Your task to perform on an android device: uninstall "Duolingo: language lessons" Image 0: 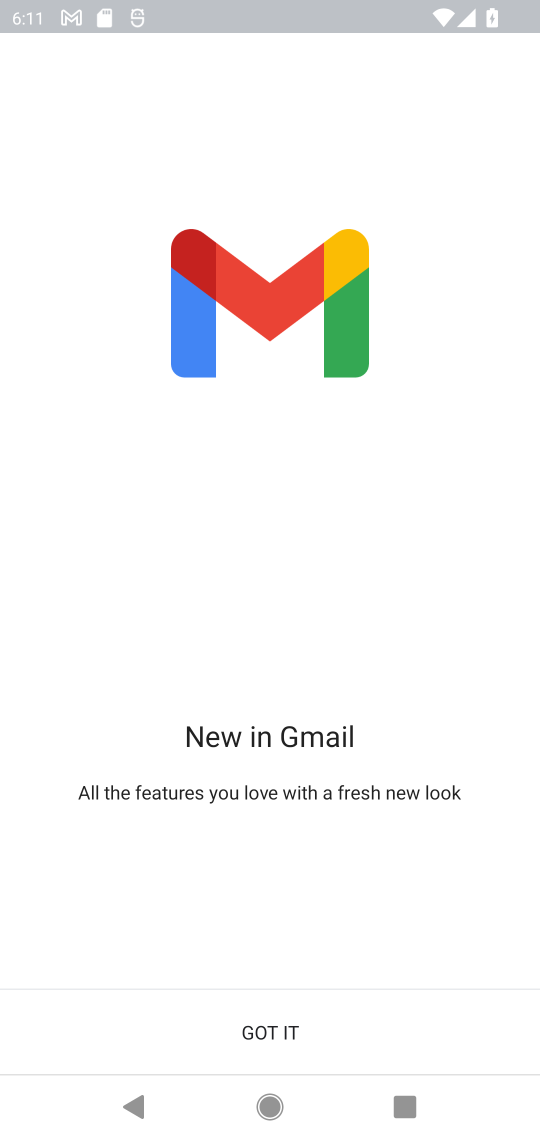
Step 0: click (268, 1019)
Your task to perform on an android device: uninstall "Duolingo: language lessons" Image 1: 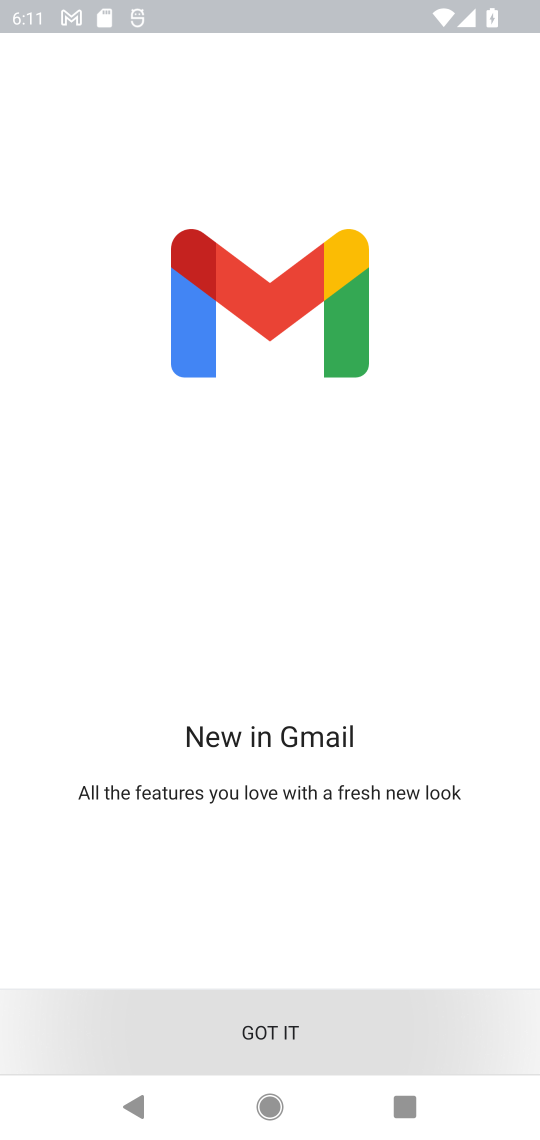
Step 1: click (300, 1025)
Your task to perform on an android device: uninstall "Duolingo: language lessons" Image 2: 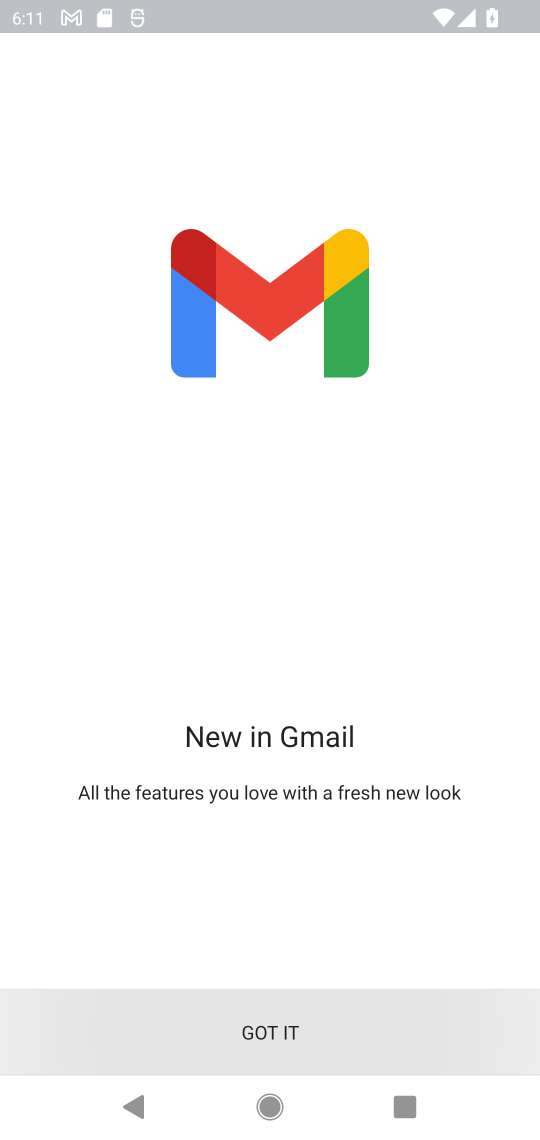
Step 2: click (302, 1025)
Your task to perform on an android device: uninstall "Duolingo: language lessons" Image 3: 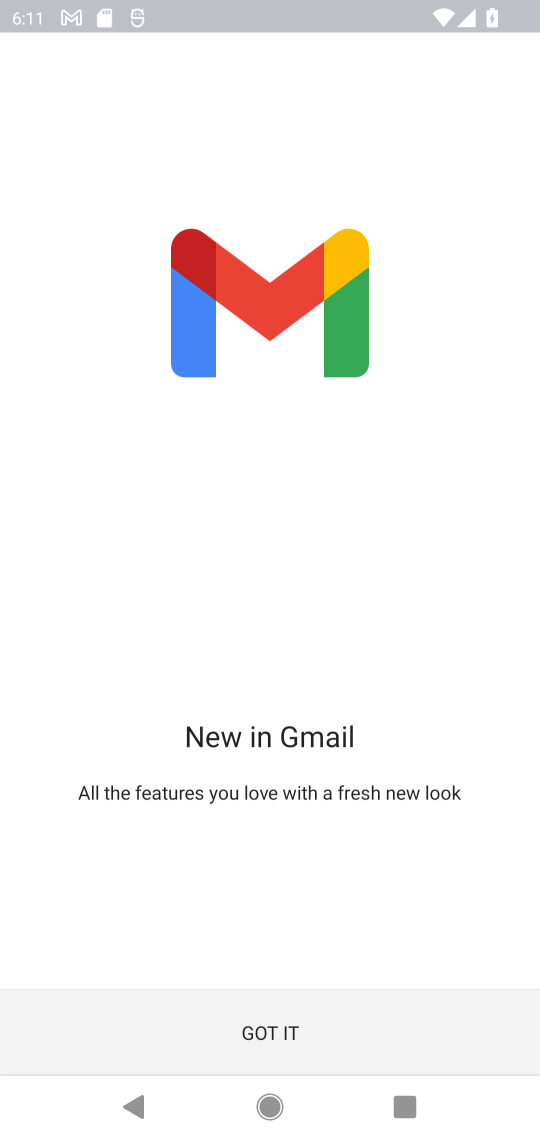
Step 3: click (303, 1023)
Your task to perform on an android device: uninstall "Duolingo: language lessons" Image 4: 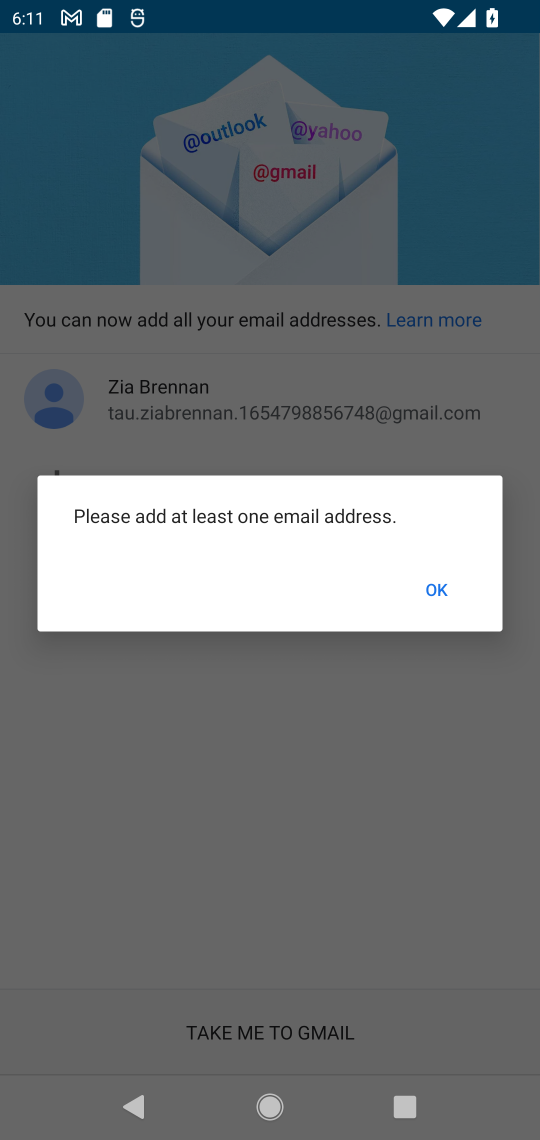
Step 4: click (437, 588)
Your task to perform on an android device: uninstall "Duolingo: language lessons" Image 5: 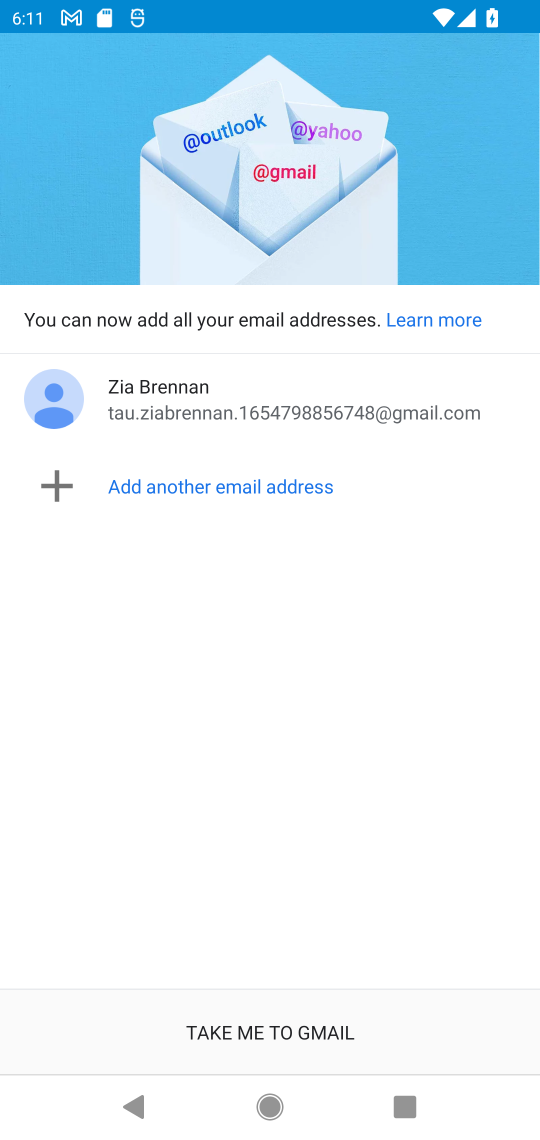
Step 5: press back button
Your task to perform on an android device: uninstall "Duolingo: language lessons" Image 6: 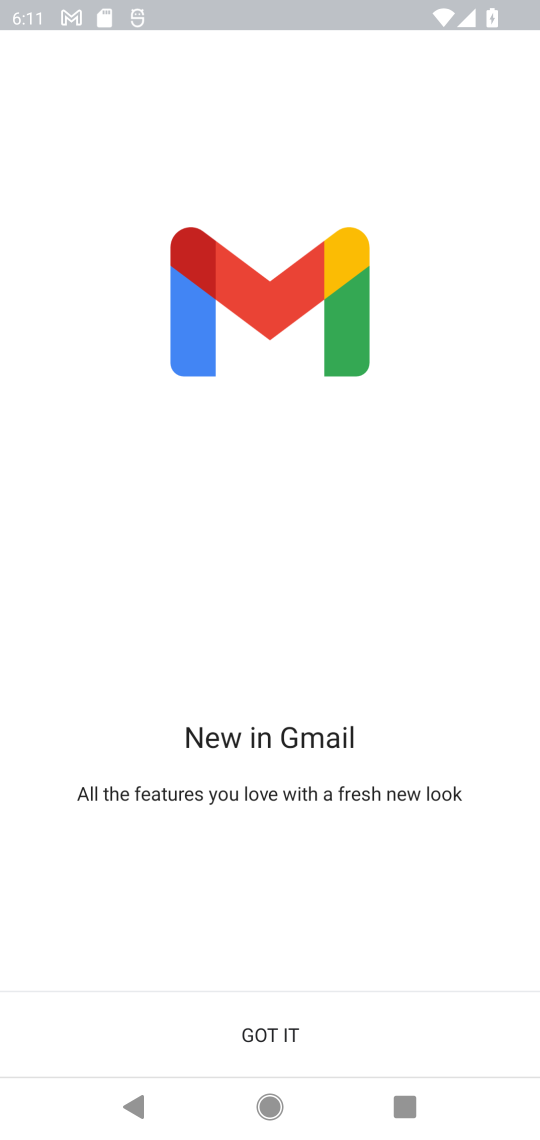
Step 6: press back button
Your task to perform on an android device: uninstall "Duolingo: language lessons" Image 7: 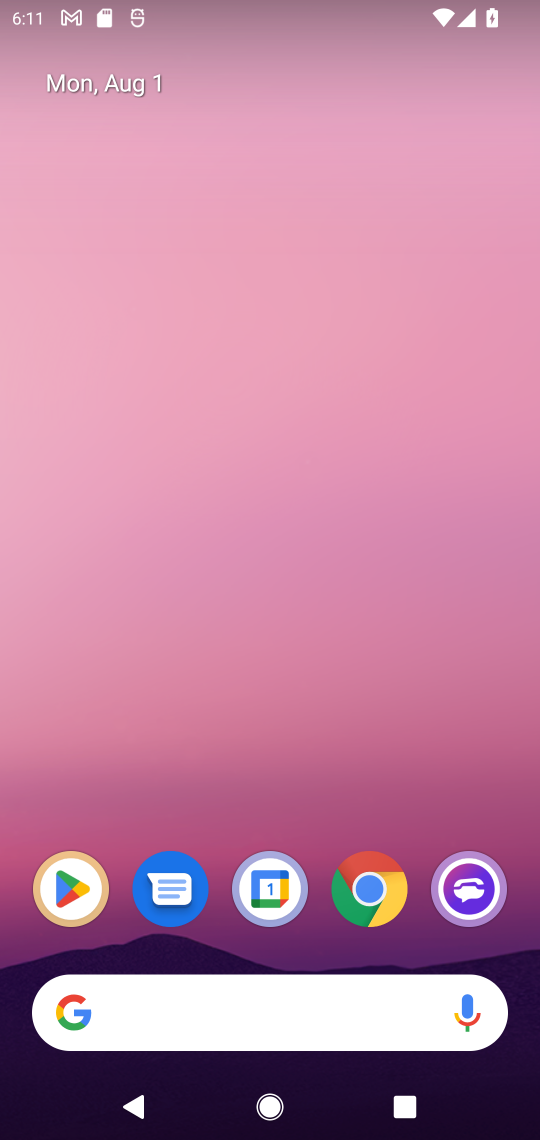
Step 7: drag from (270, 1030) to (134, 179)
Your task to perform on an android device: uninstall "Duolingo: language lessons" Image 8: 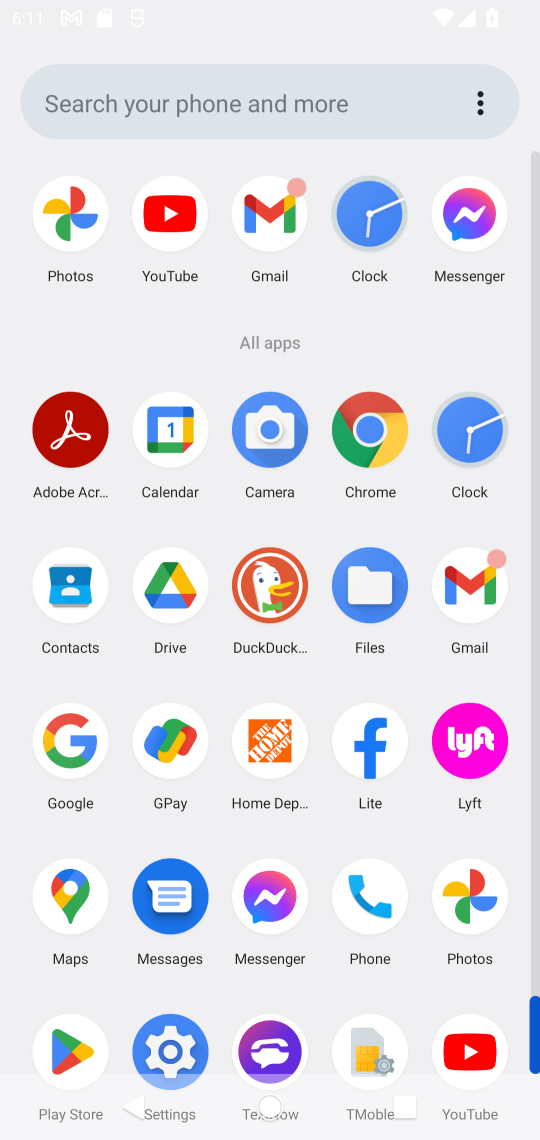
Step 8: drag from (240, 672) to (232, 327)
Your task to perform on an android device: uninstall "Duolingo: language lessons" Image 9: 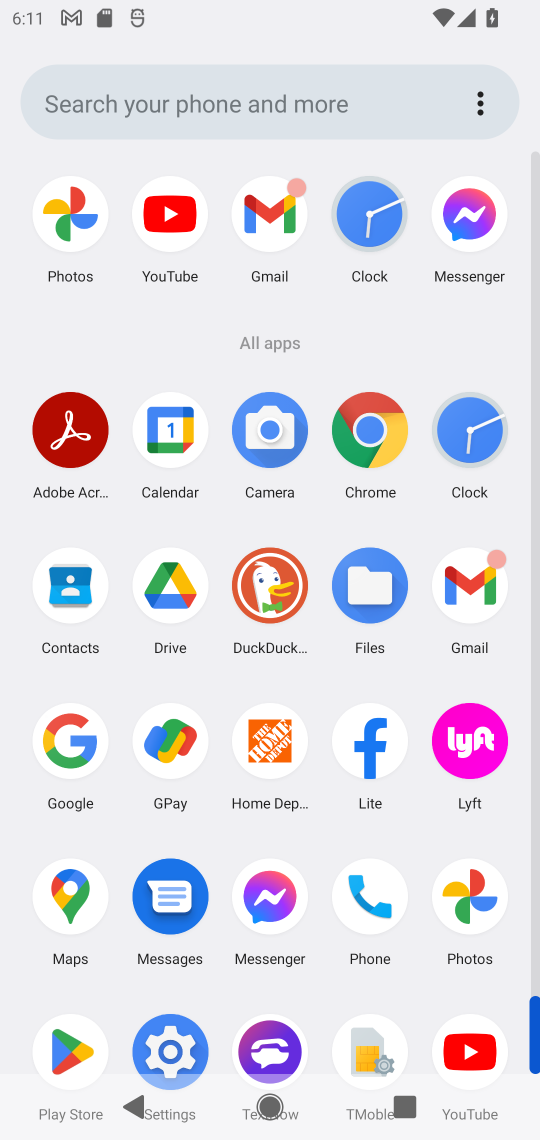
Step 9: click (58, 1051)
Your task to perform on an android device: uninstall "Duolingo: language lessons" Image 10: 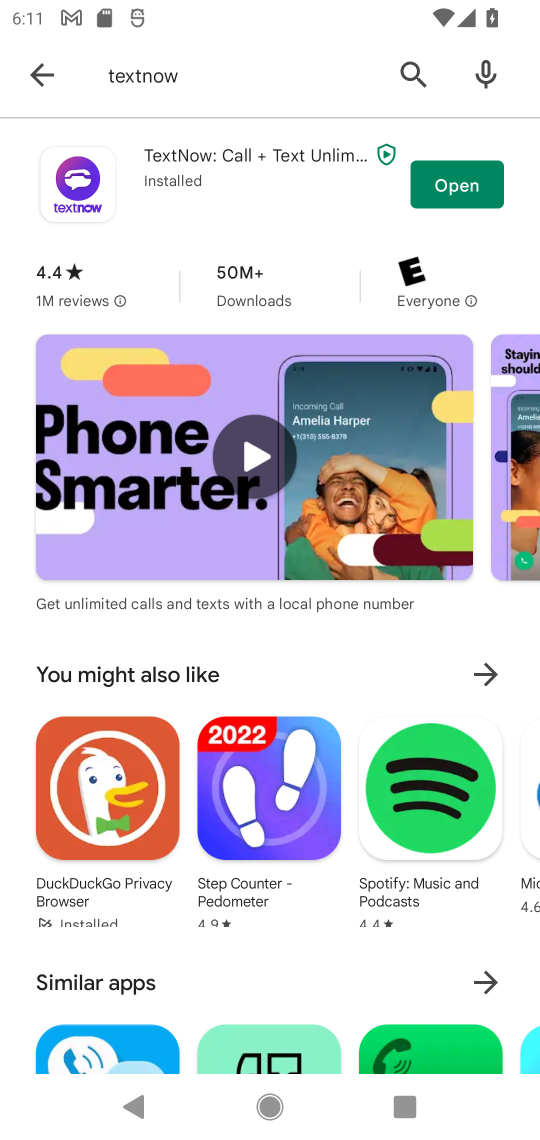
Step 10: click (51, 72)
Your task to perform on an android device: uninstall "Duolingo: language lessons" Image 11: 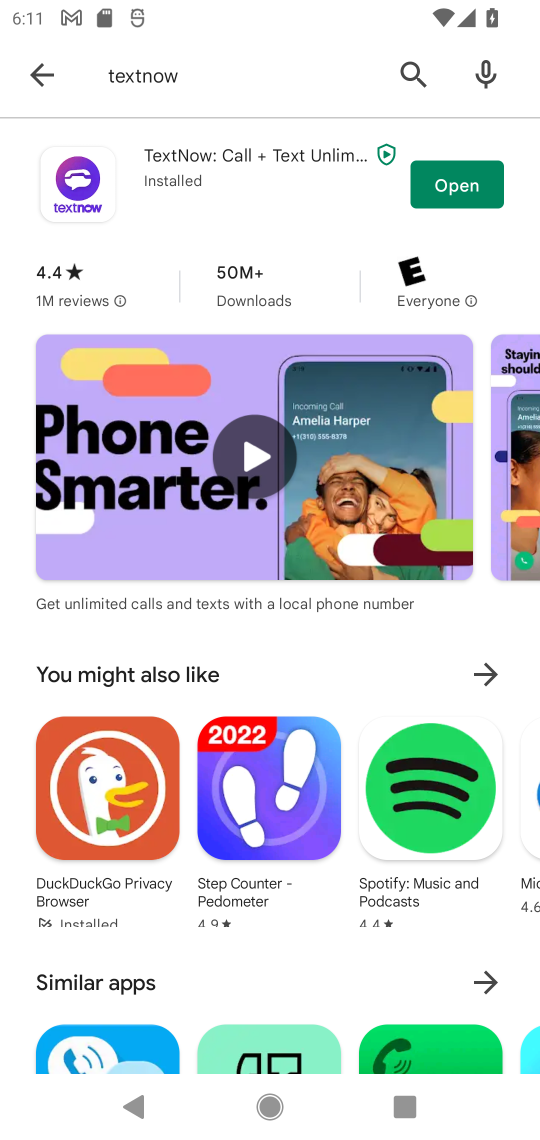
Step 11: click (36, 75)
Your task to perform on an android device: uninstall "Duolingo: language lessons" Image 12: 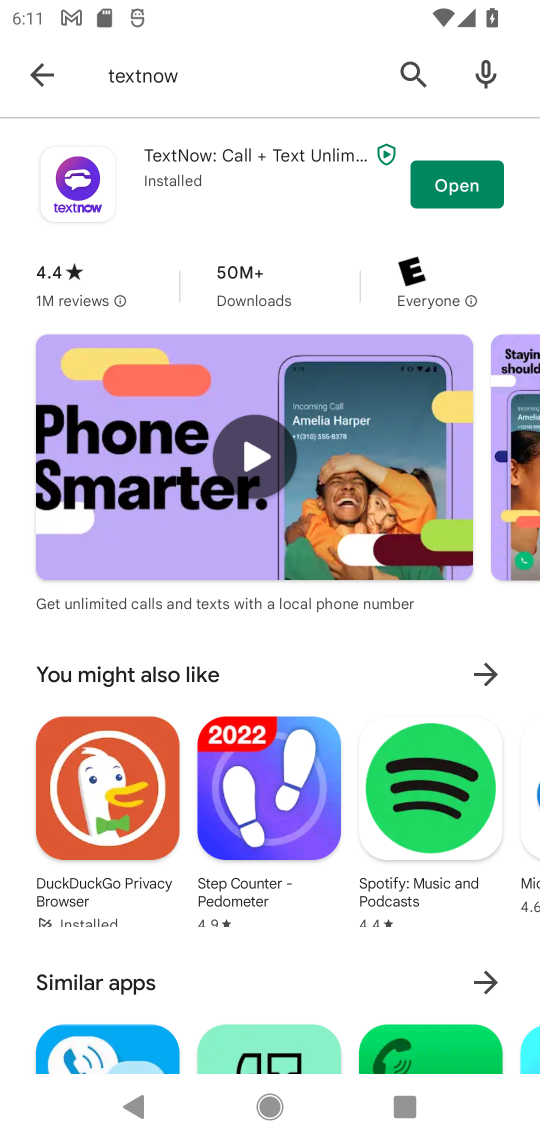
Step 12: click (38, 75)
Your task to perform on an android device: uninstall "Duolingo: language lessons" Image 13: 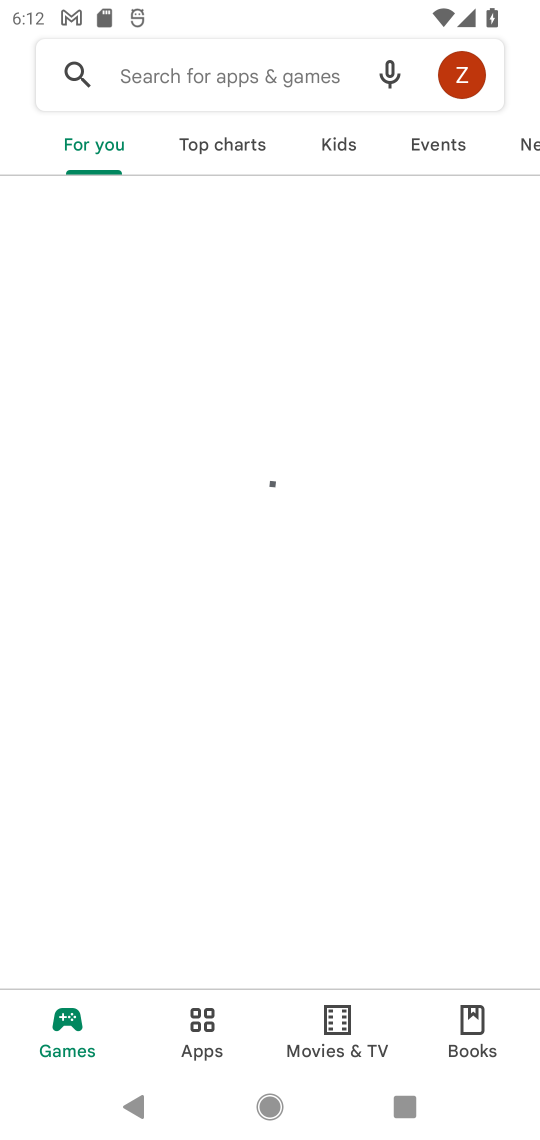
Step 13: click (38, 75)
Your task to perform on an android device: uninstall "Duolingo: language lessons" Image 14: 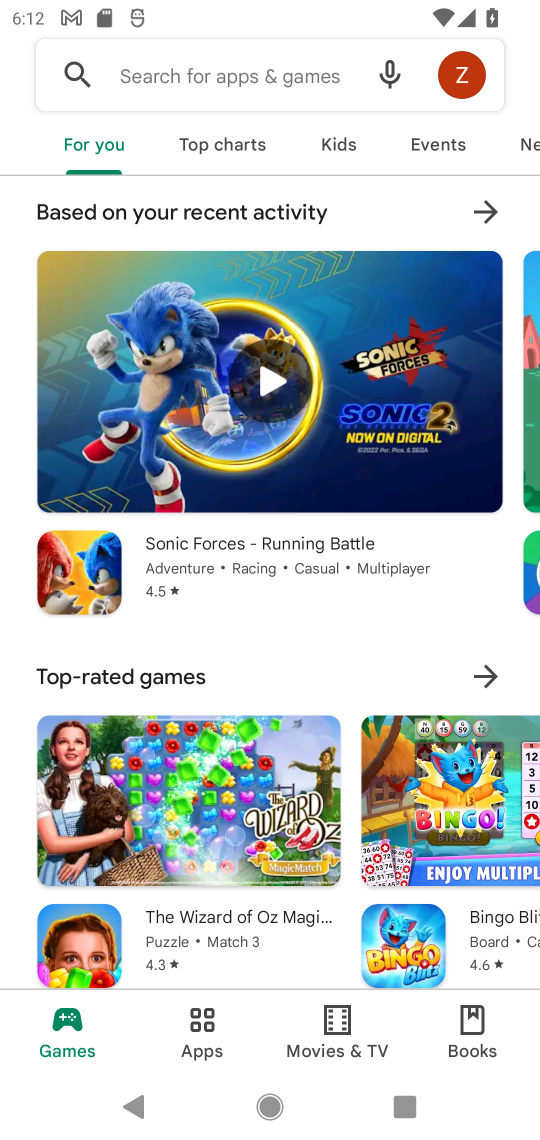
Step 14: click (162, 72)
Your task to perform on an android device: uninstall "Duolingo: language lessons" Image 15: 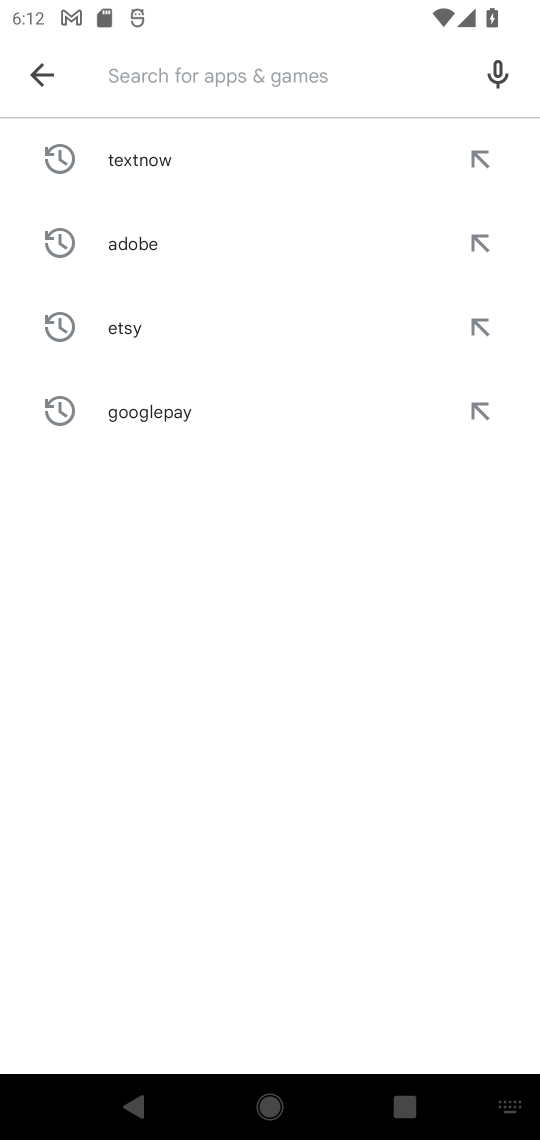
Step 15: type "Duolingo"
Your task to perform on an android device: uninstall "Duolingo: language lessons" Image 16: 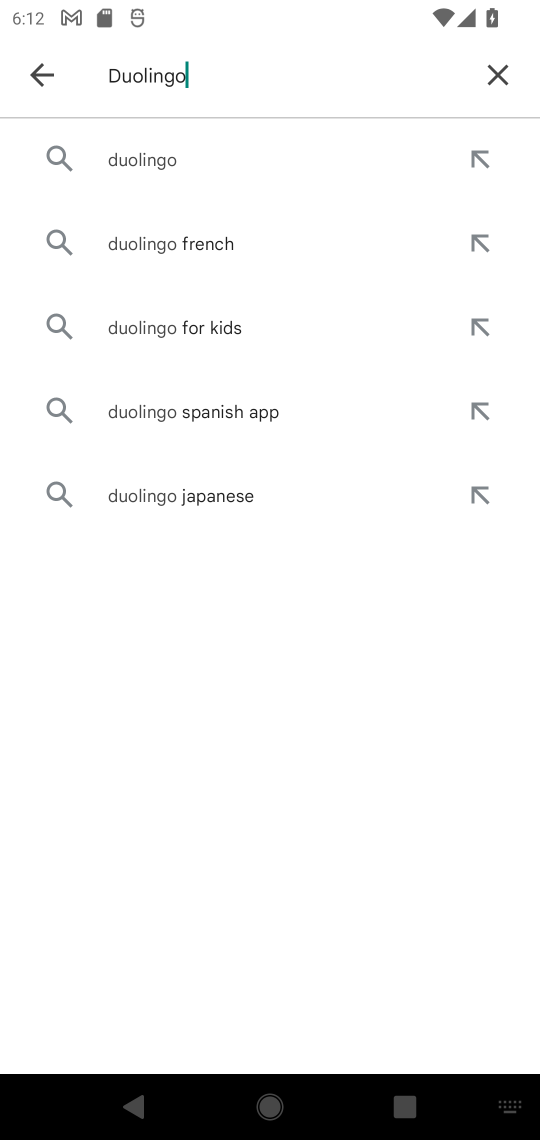
Step 16: click (494, 143)
Your task to perform on an android device: uninstall "Duolingo: language lessons" Image 17: 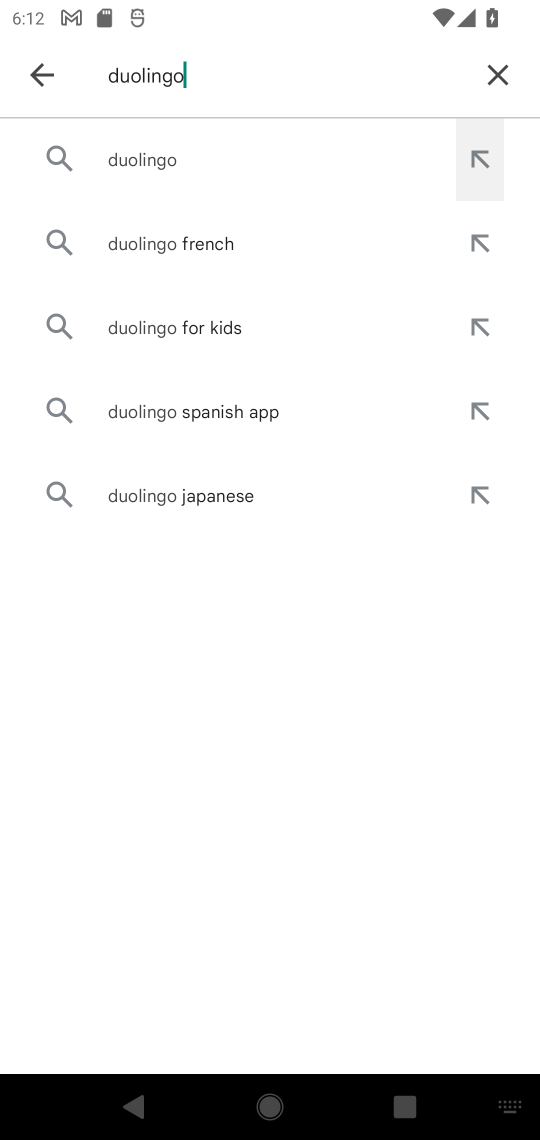
Step 17: click (478, 165)
Your task to perform on an android device: uninstall "Duolingo: language lessons" Image 18: 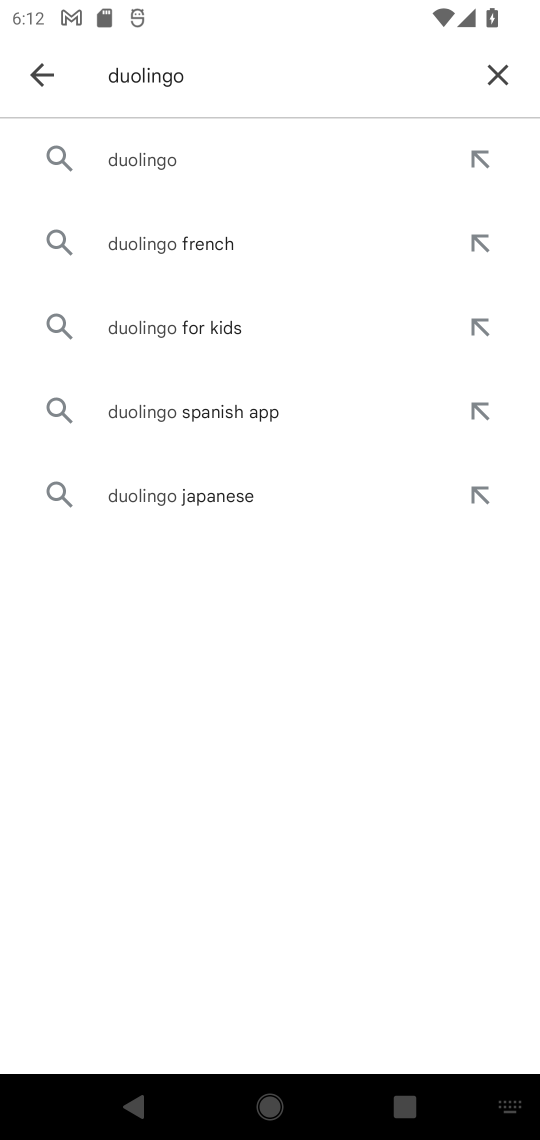
Step 18: click (115, 147)
Your task to perform on an android device: uninstall "Duolingo: language lessons" Image 19: 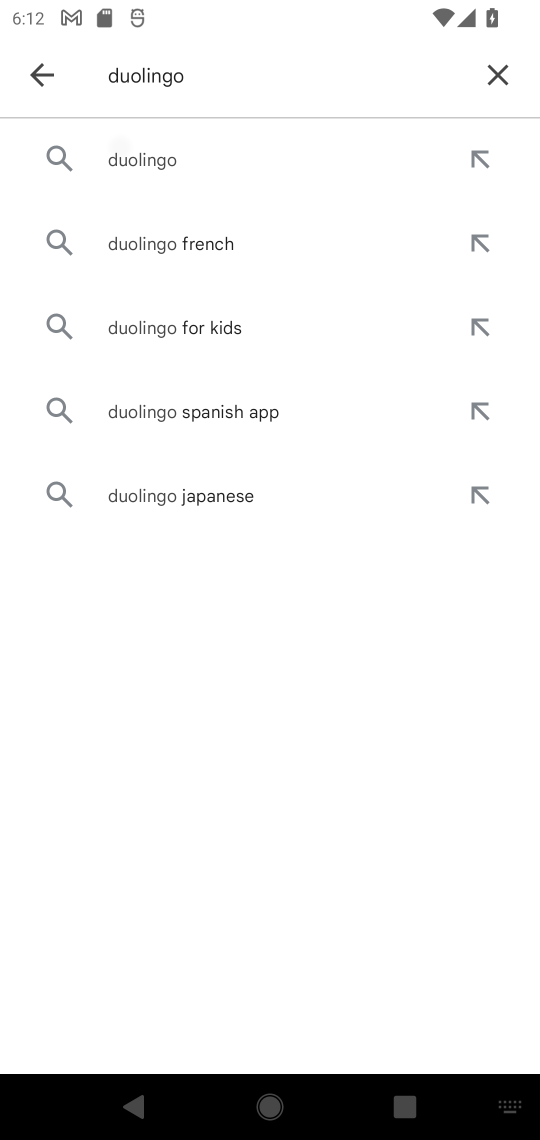
Step 19: click (115, 149)
Your task to perform on an android device: uninstall "Duolingo: language lessons" Image 20: 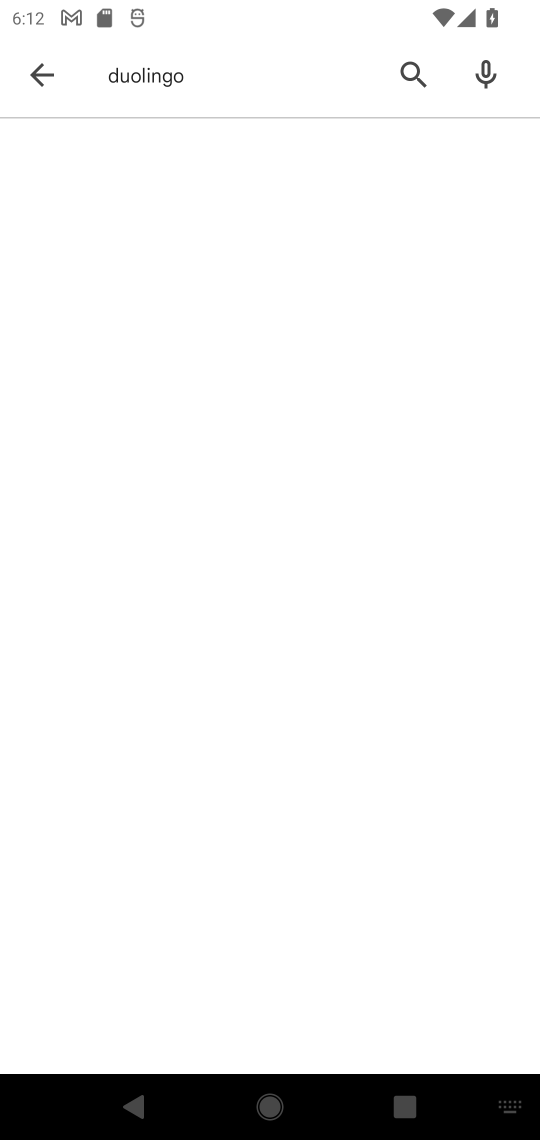
Step 20: click (160, 159)
Your task to perform on an android device: uninstall "Duolingo: language lessons" Image 21: 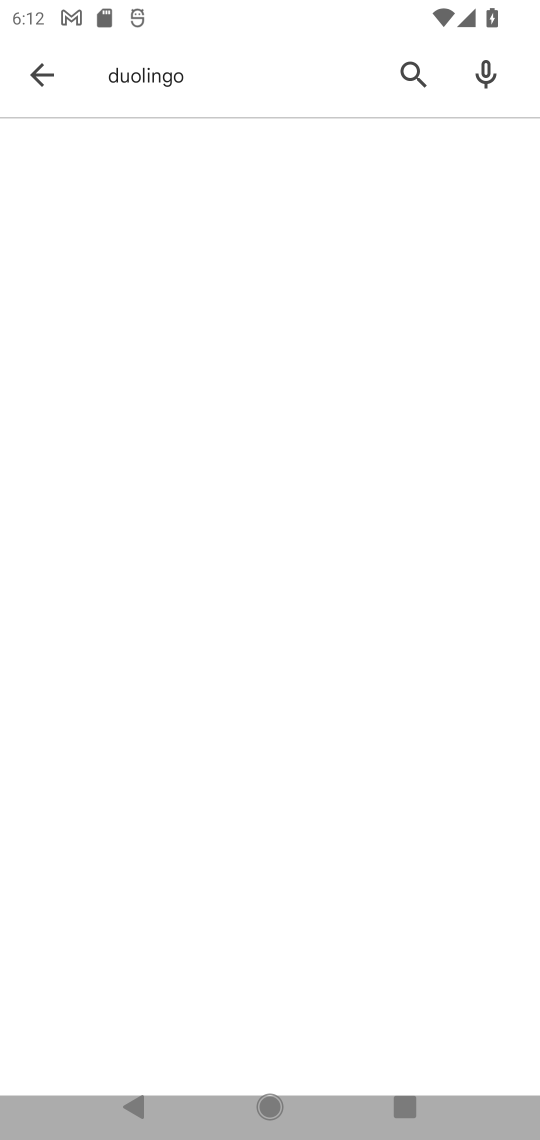
Step 21: click (165, 163)
Your task to perform on an android device: uninstall "Duolingo: language lessons" Image 22: 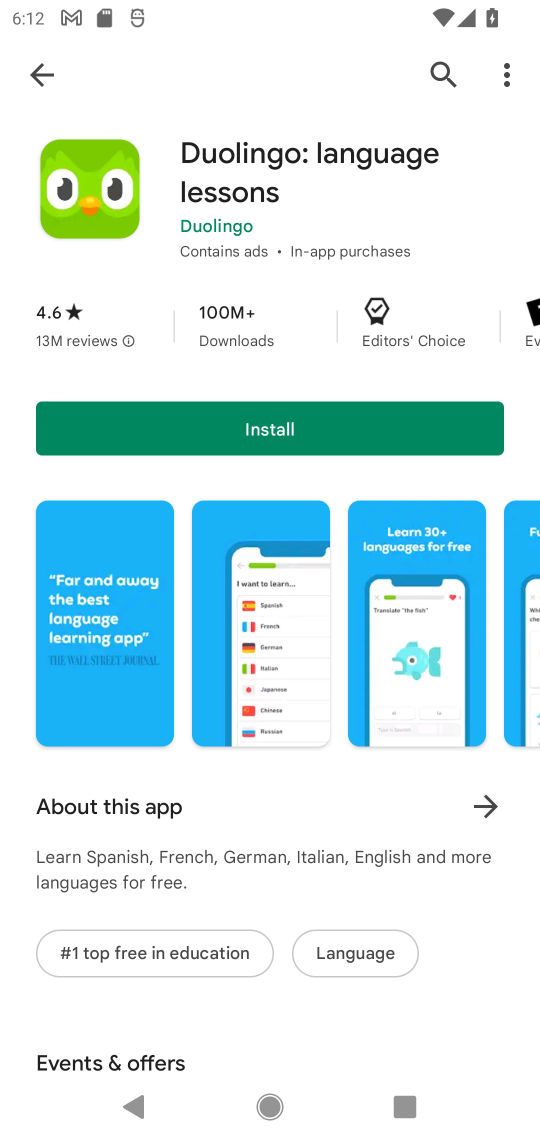
Step 22: task complete